Your task to perform on an android device: Show me popular games on the Play Store Image 0: 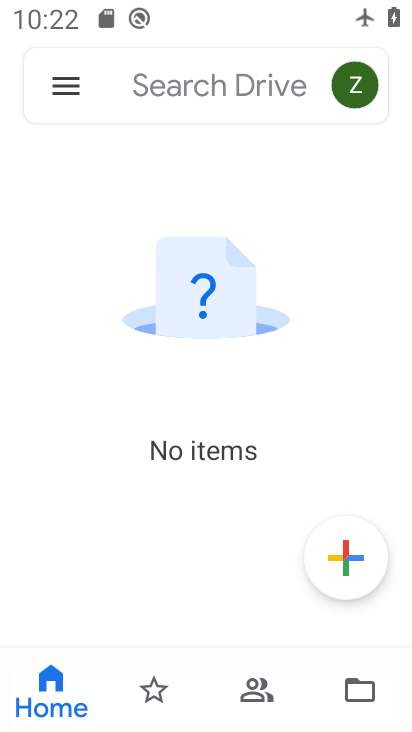
Step 0: press home button
Your task to perform on an android device: Show me popular games on the Play Store Image 1: 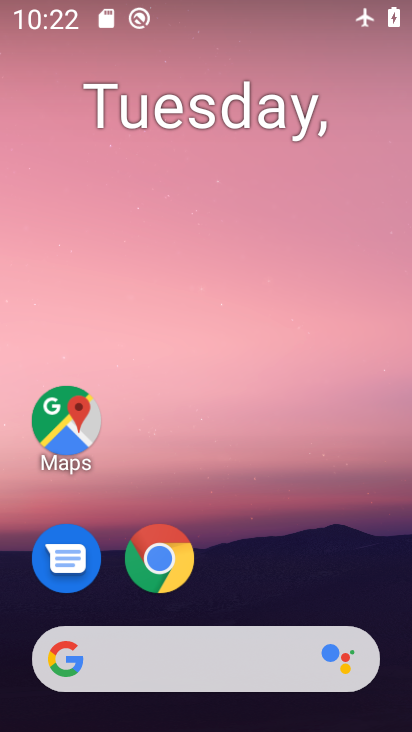
Step 1: drag from (357, 581) to (358, 123)
Your task to perform on an android device: Show me popular games on the Play Store Image 2: 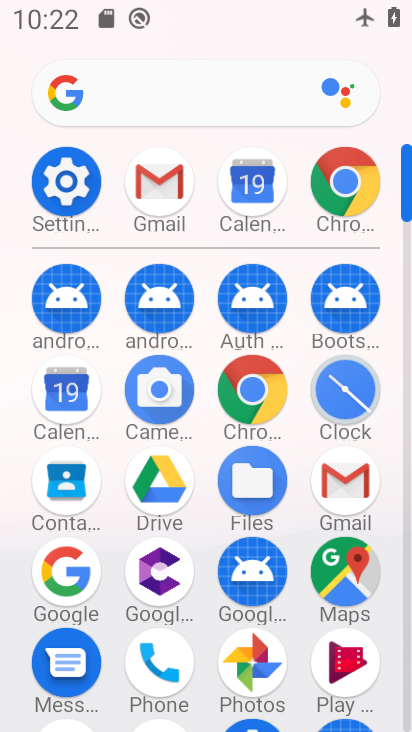
Step 2: drag from (387, 629) to (405, 411)
Your task to perform on an android device: Show me popular games on the Play Store Image 3: 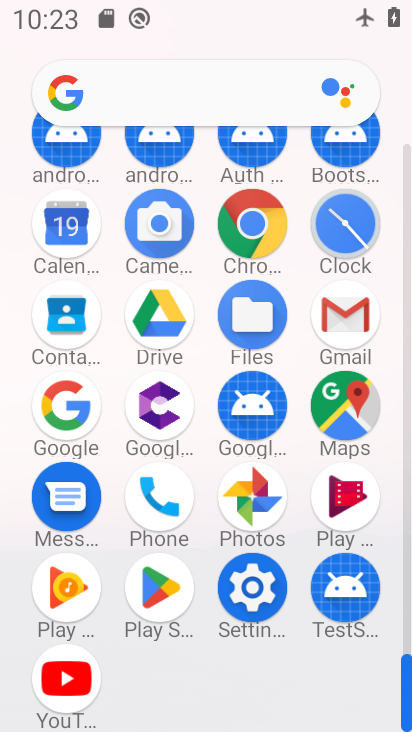
Step 3: click (167, 593)
Your task to perform on an android device: Show me popular games on the Play Store Image 4: 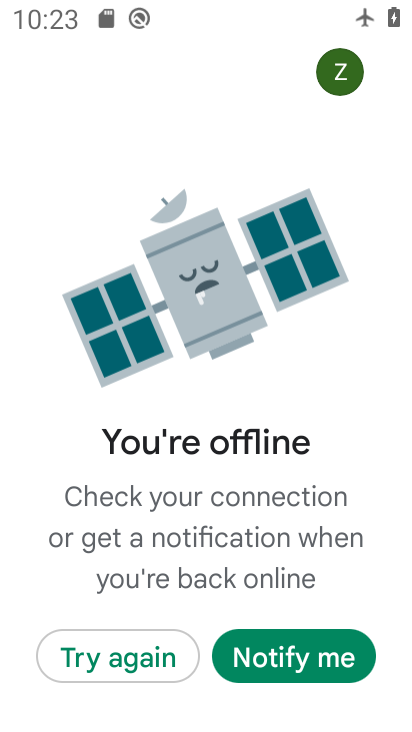
Step 4: task complete